Your task to perform on an android device: What is the news today? Image 0: 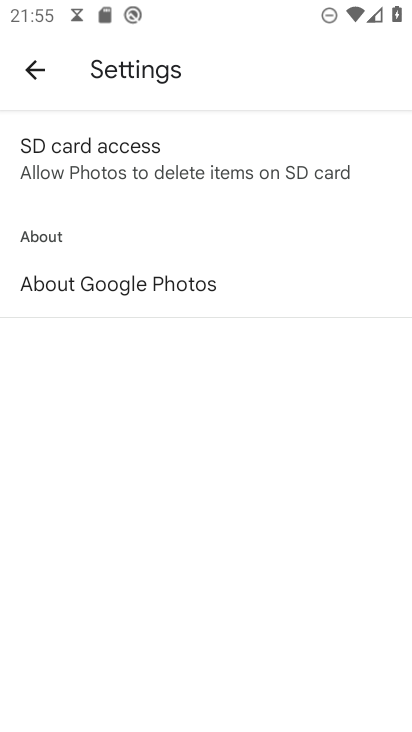
Step 0: press back button
Your task to perform on an android device: What is the news today? Image 1: 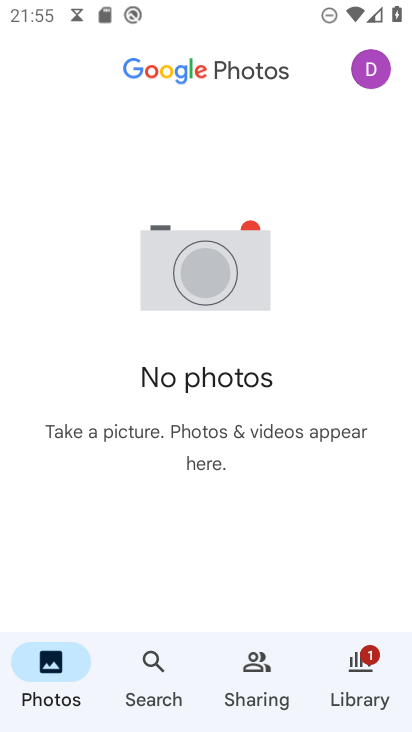
Step 1: press home button
Your task to perform on an android device: What is the news today? Image 2: 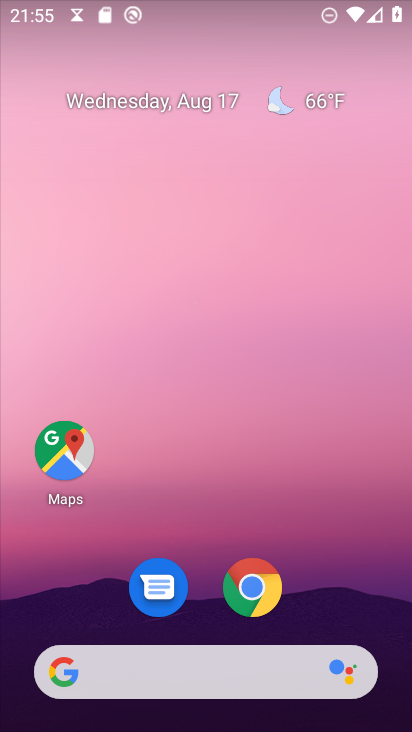
Step 2: click (132, 678)
Your task to perform on an android device: What is the news today? Image 3: 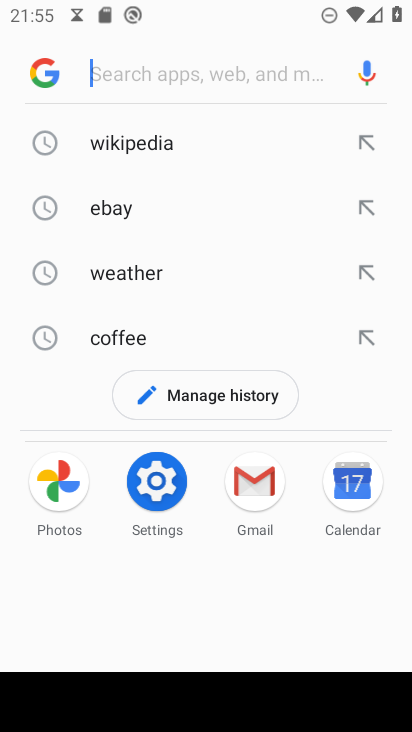
Step 3: type "What is the news today?"
Your task to perform on an android device: What is the news today? Image 4: 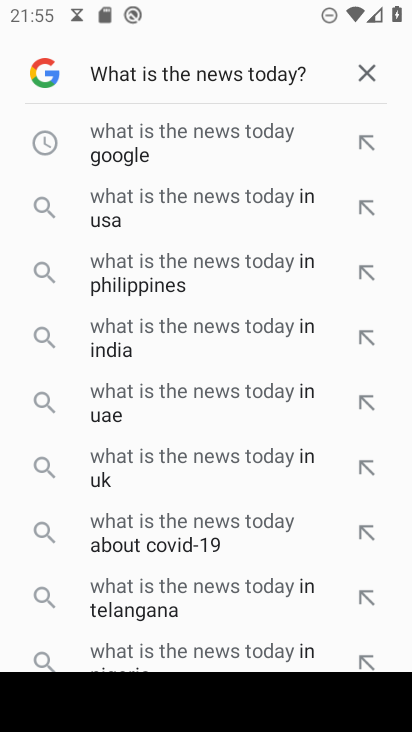
Step 4: type ""
Your task to perform on an android device: What is the news today? Image 5: 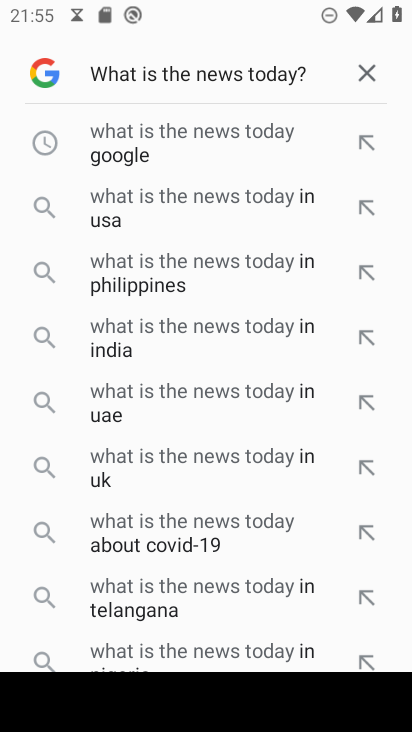
Step 5: type ""
Your task to perform on an android device: What is the news today? Image 6: 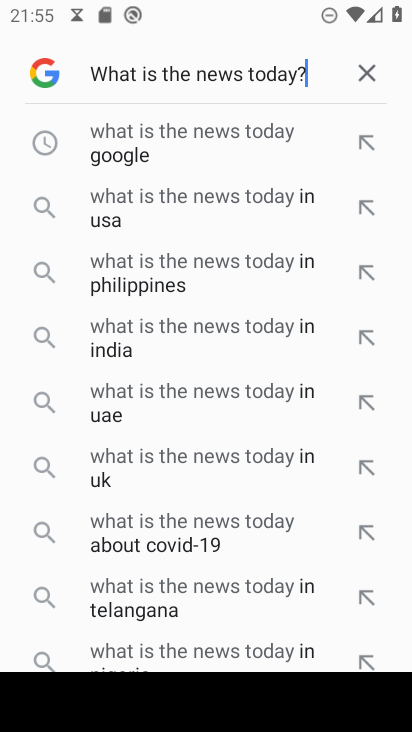
Step 6: task complete